Your task to perform on an android device: set the stopwatch Image 0: 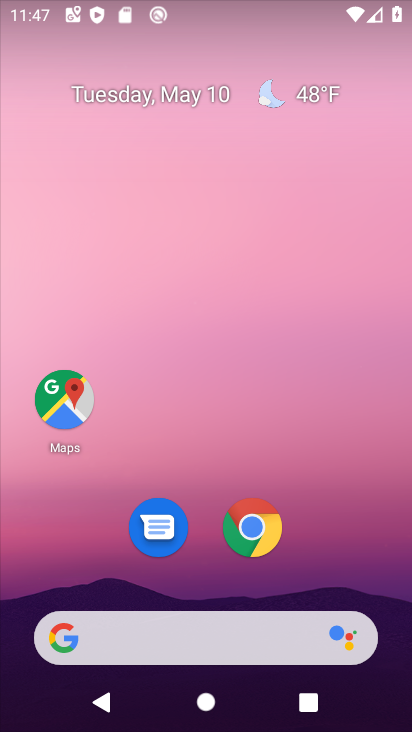
Step 0: drag from (221, 726) to (166, 240)
Your task to perform on an android device: set the stopwatch Image 1: 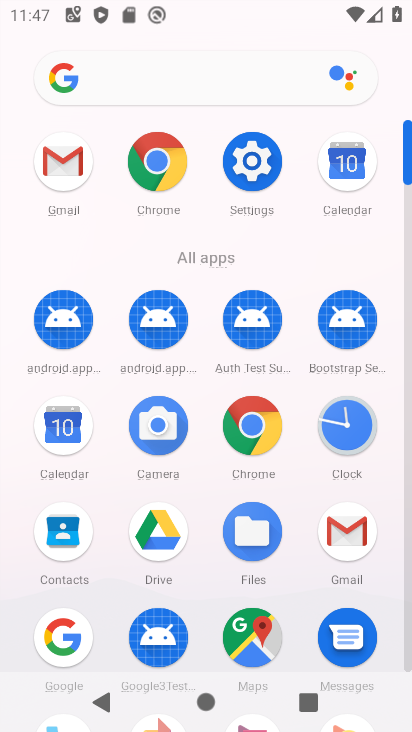
Step 1: click (354, 419)
Your task to perform on an android device: set the stopwatch Image 2: 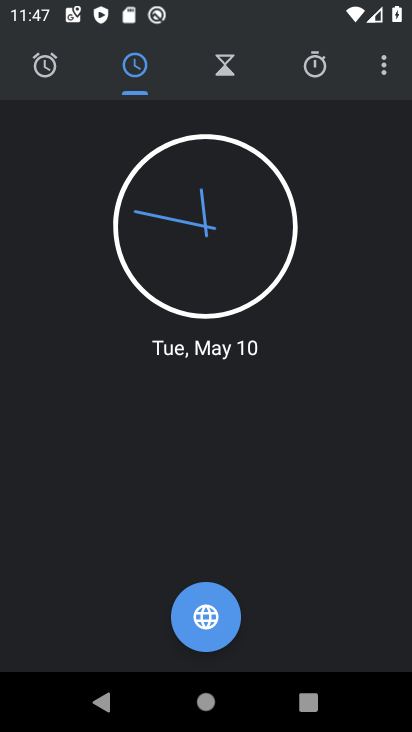
Step 2: click (315, 65)
Your task to perform on an android device: set the stopwatch Image 3: 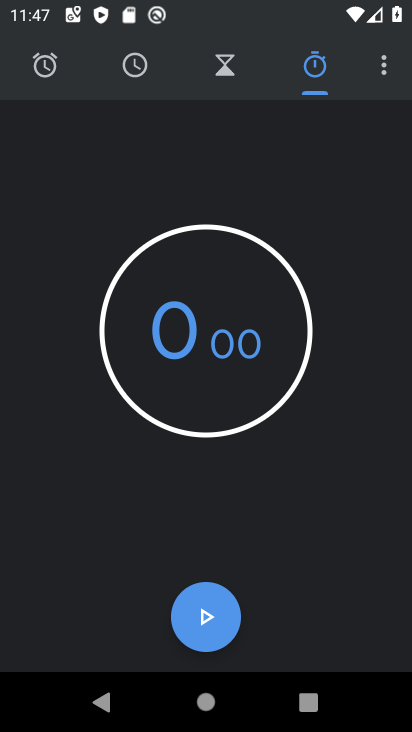
Step 3: click (229, 344)
Your task to perform on an android device: set the stopwatch Image 4: 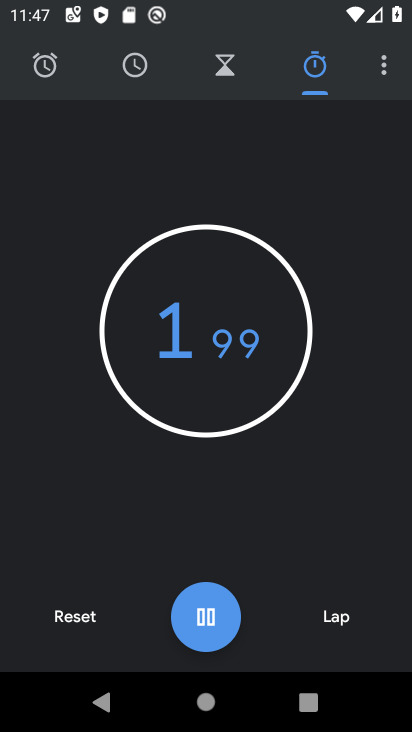
Step 4: type "677"
Your task to perform on an android device: set the stopwatch Image 5: 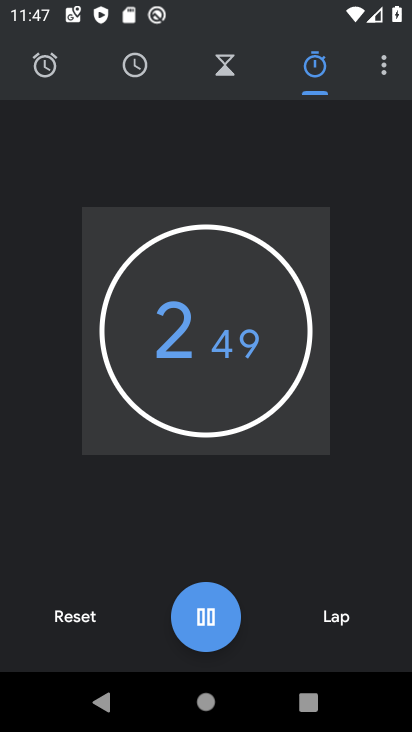
Step 5: type ""
Your task to perform on an android device: set the stopwatch Image 6: 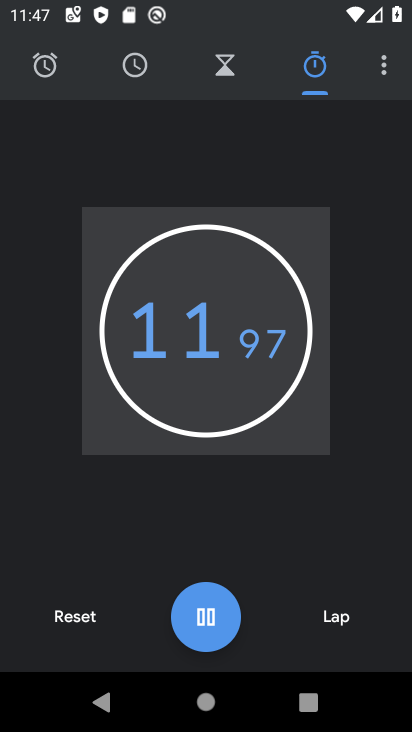
Step 6: task complete